Your task to perform on an android device: Open Google Maps Image 0: 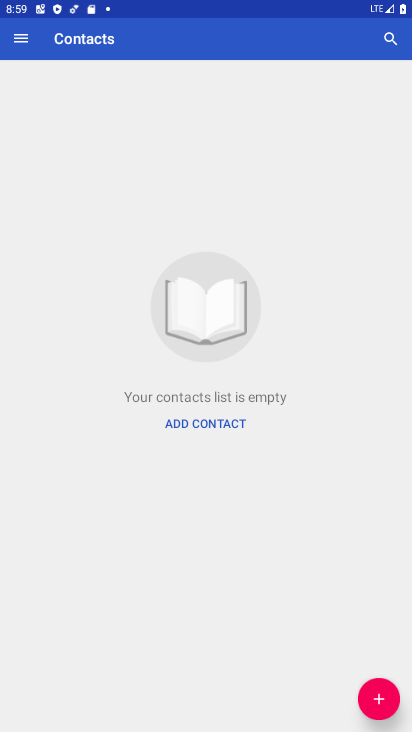
Step 0: click (237, 630)
Your task to perform on an android device: Open Google Maps Image 1: 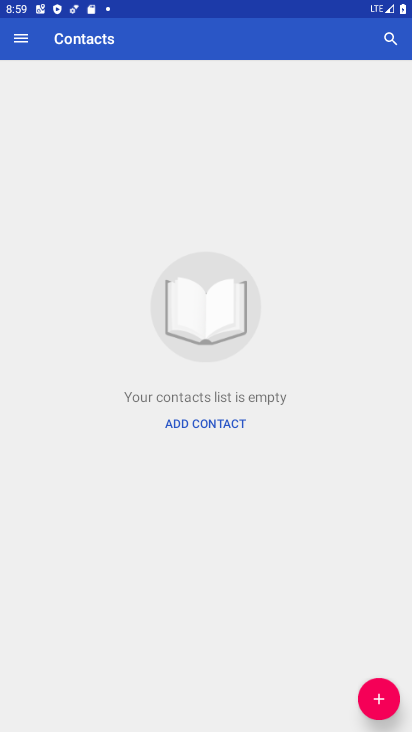
Step 1: press home button
Your task to perform on an android device: Open Google Maps Image 2: 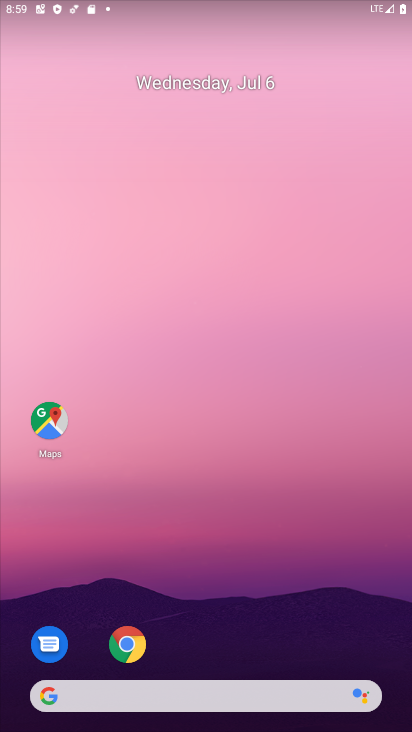
Step 2: click (30, 447)
Your task to perform on an android device: Open Google Maps Image 3: 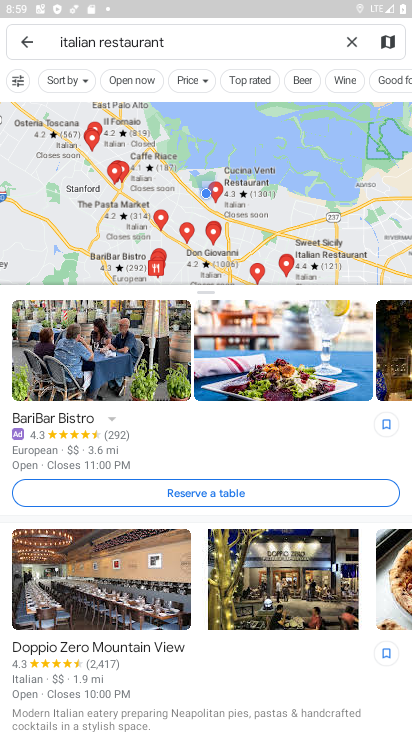
Step 3: task complete